Your task to perform on an android device: turn off sleep mode Image 0: 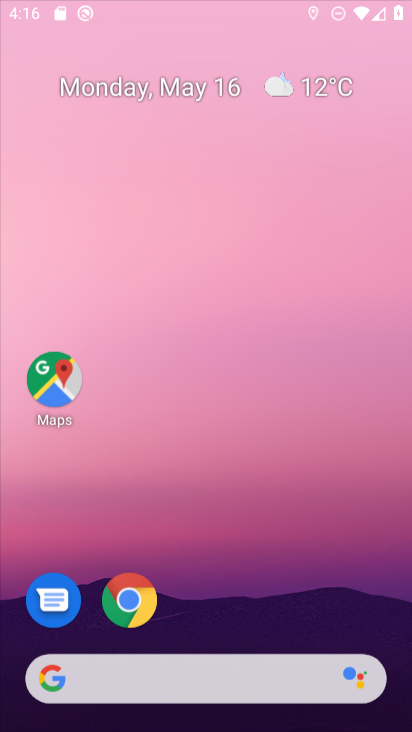
Step 0: click (360, 93)
Your task to perform on an android device: turn off sleep mode Image 1: 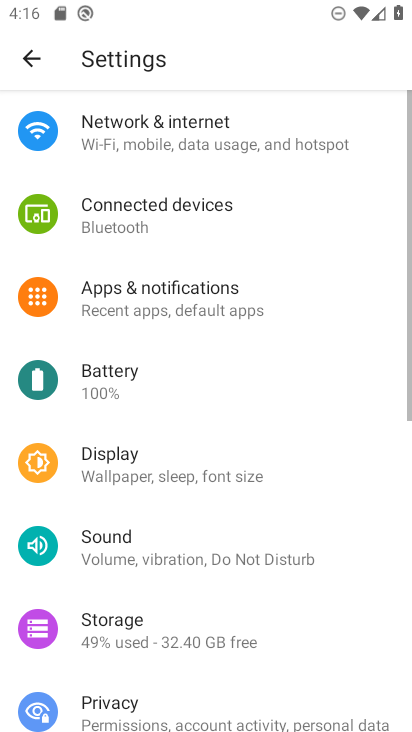
Step 1: press home button
Your task to perform on an android device: turn off sleep mode Image 2: 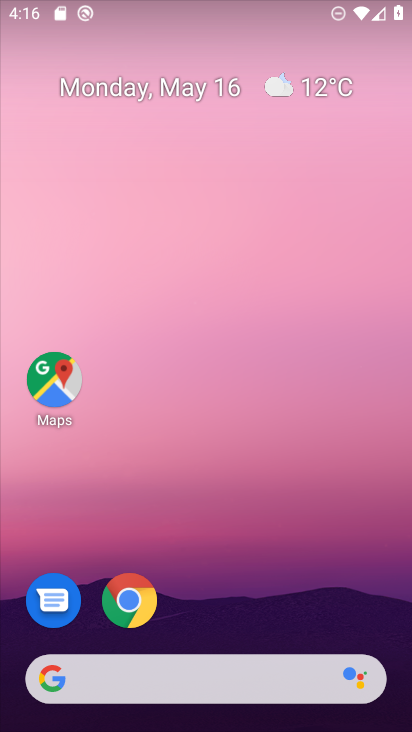
Step 2: drag from (290, 532) to (289, 118)
Your task to perform on an android device: turn off sleep mode Image 3: 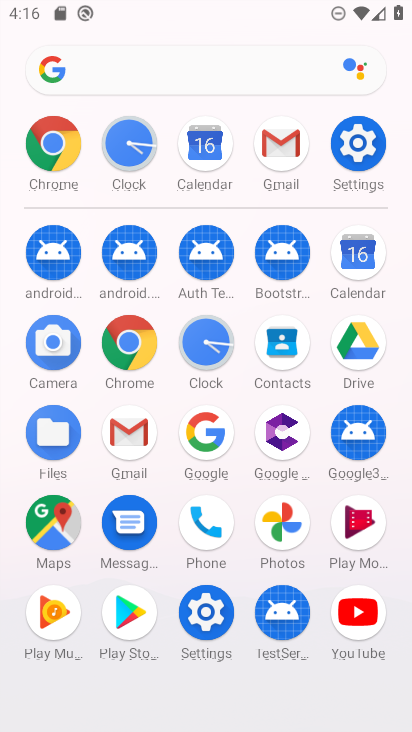
Step 3: click (353, 154)
Your task to perform on an android device: turn off sleep mode Image 4: 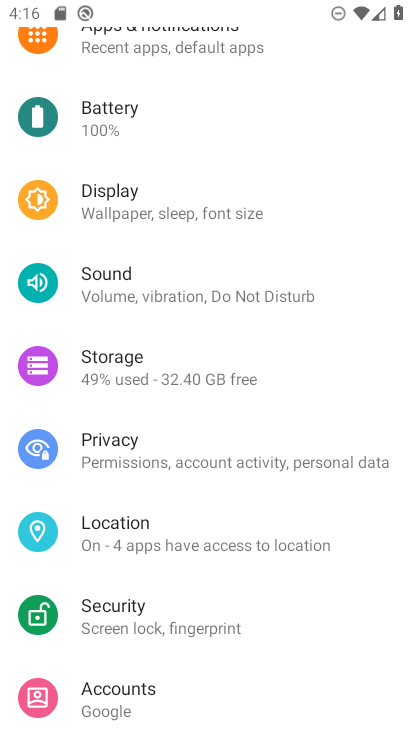
Step 4: click (189, 218)
Your task to perform on an android device: turn off sleep mode Image 5: 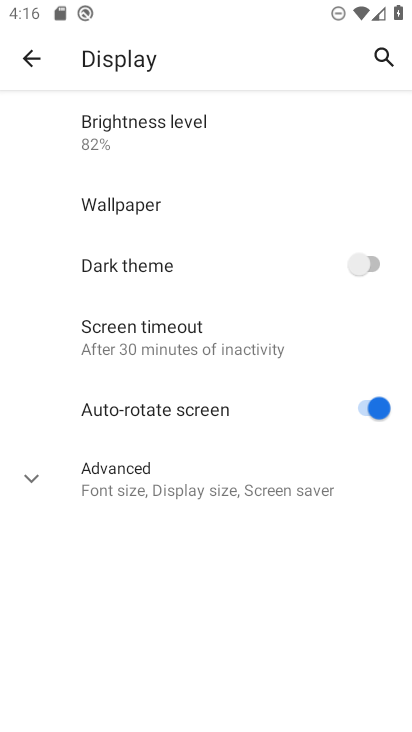
Step 5: click (176, 346)
Your task to perform on an android device: turn off sleep mode Image 6: 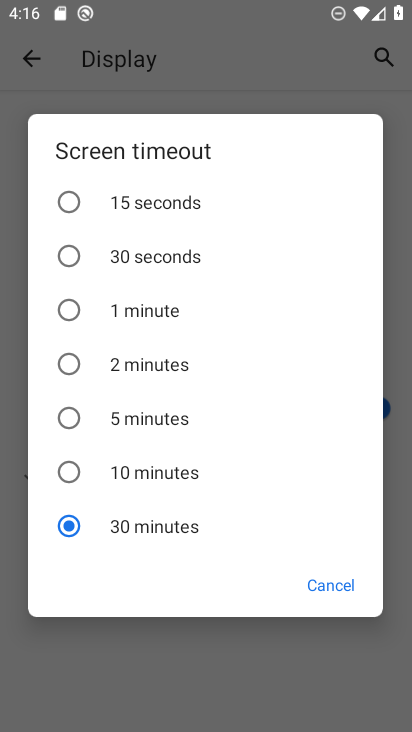
Step 6: task complete